Your task to perform on an android device: turn off improve location accuracy Image 0: 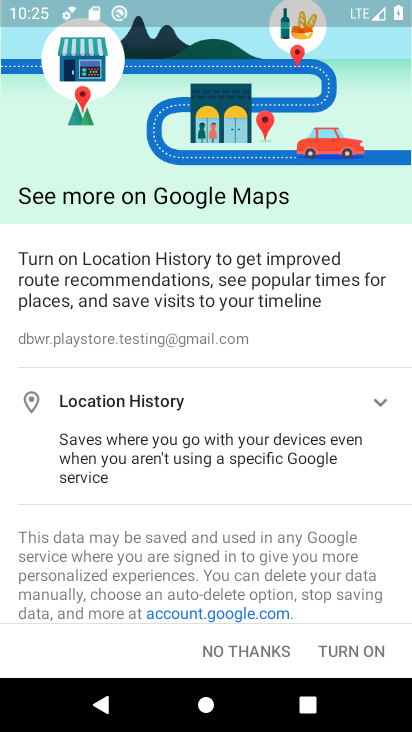
Step 0: press home button
Your task to perform on an android device: turn off improve location accuracy Image 1: 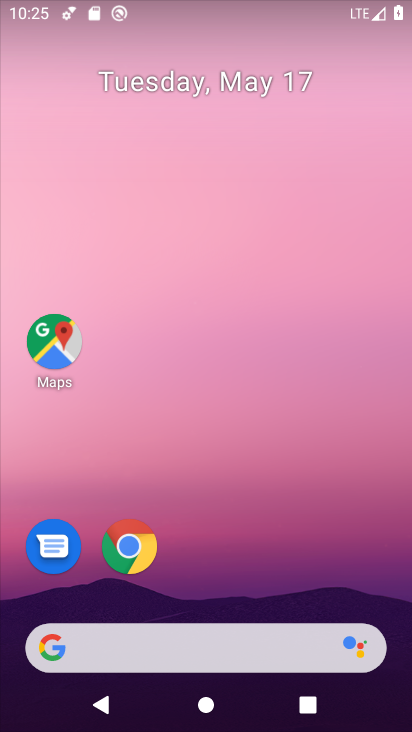
Step 1: drag from (226, 592) to (303, 41)
Your task to perform on an android device: turn off improve location accuracy Image 2: 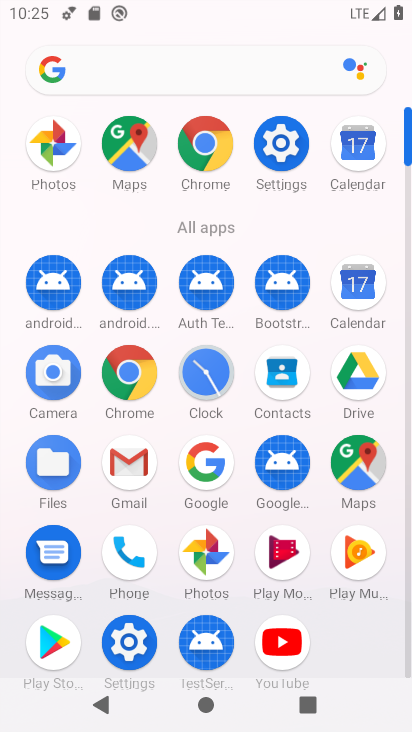
Step 2: click (131, 646)
Your task to perform on an android device: turn off improve location accuracy Image 3: 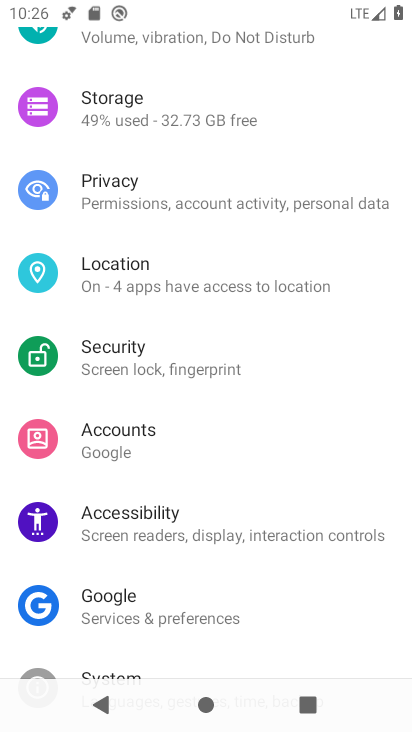
Step 3: click (180, 274)
Your task to perform on an android device: turn off improve location accuracy Image 4: 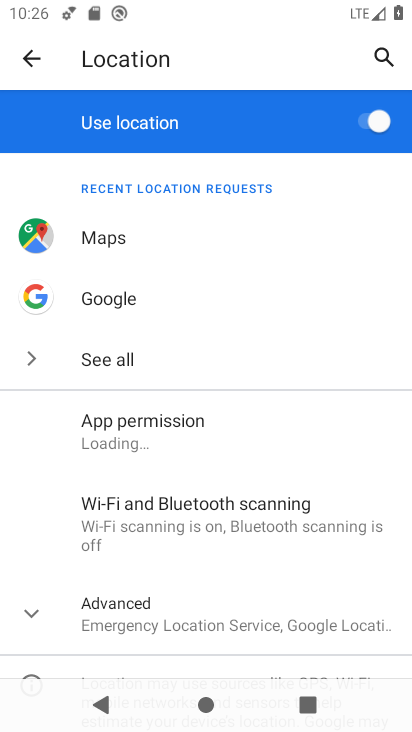
Step 4: drag from (176, 618) to (178, 385)
Your task to perform on an android device: turn off improve location accuracy Image 5: 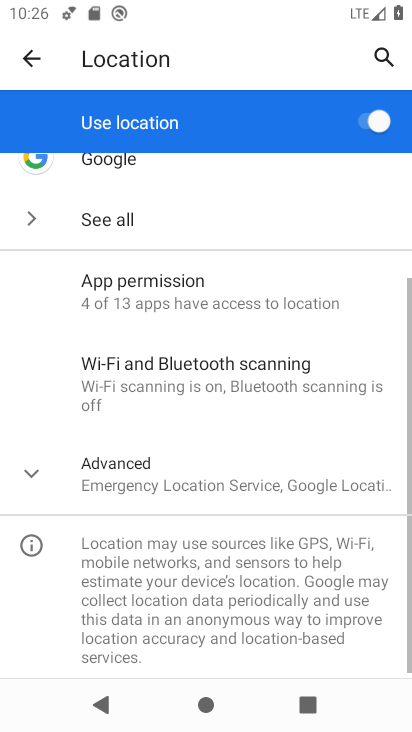
Step 5: click (133, 485)
Your task to perform on an android device: turn off improve location accuracy Image 6: 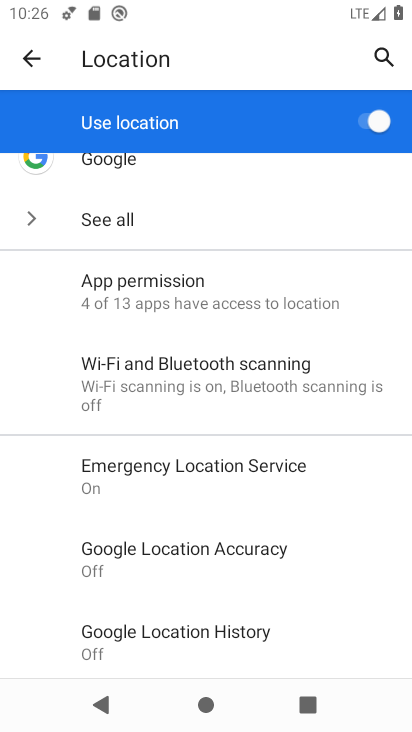
Step 6: click (148, 561)
Your task to perform on an android device: turn off improve location accuracy Image 7: 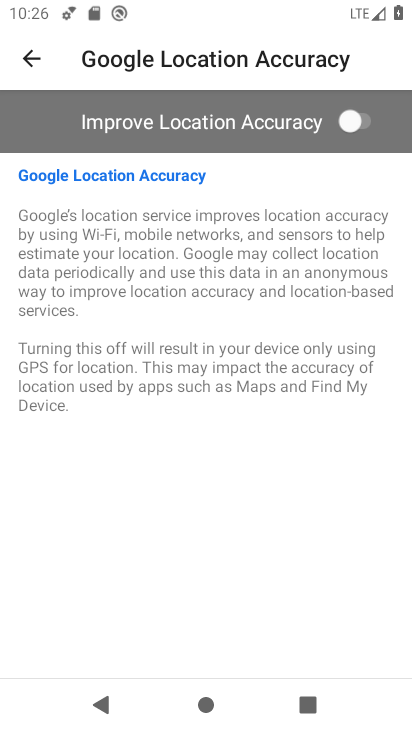
Step 7: task complete